Your task to perform on an android device: turn off priority inbox in the gmail app Image 0: 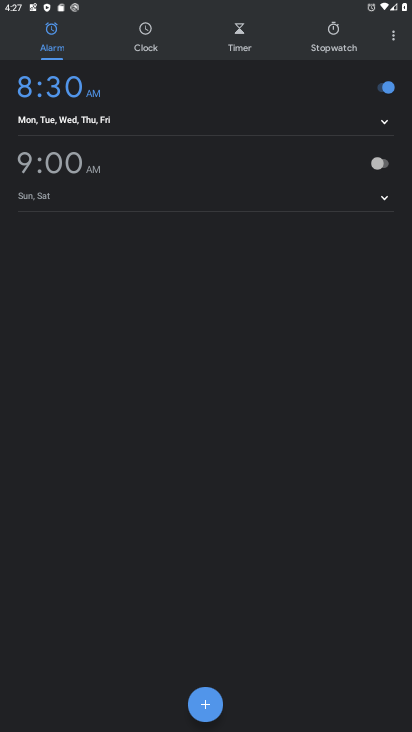
Step 0: press home button
Your task to perform on an android device: turn off priority inbox in the gmail app Image 1: 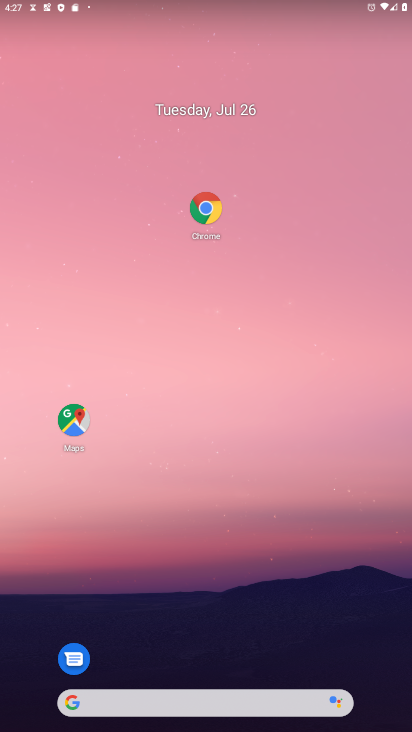
Step 1: drag from (211, 448) to (236, 47)
Your task to perform on an android device: turn off priority inbox in the gmail app Image 2: 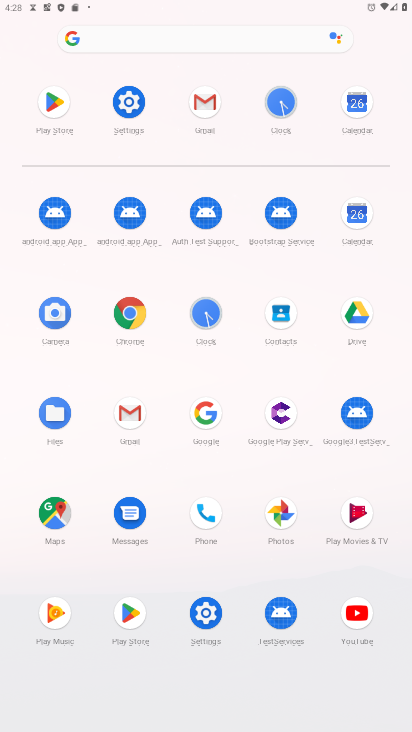
Step 2: click (198, 107)
Your task to perform on an android device: turn off priority inbox in the gmail app Image 3: 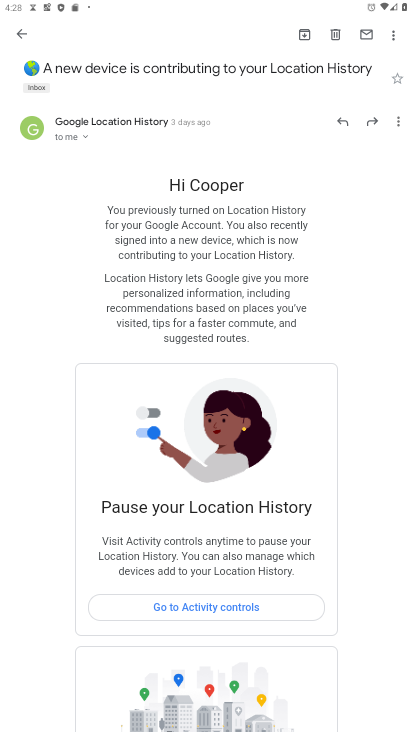
Step 3: click (19, 29)
Your task to perform on an android device: turn off priority inbox in the gmail app Image 4: 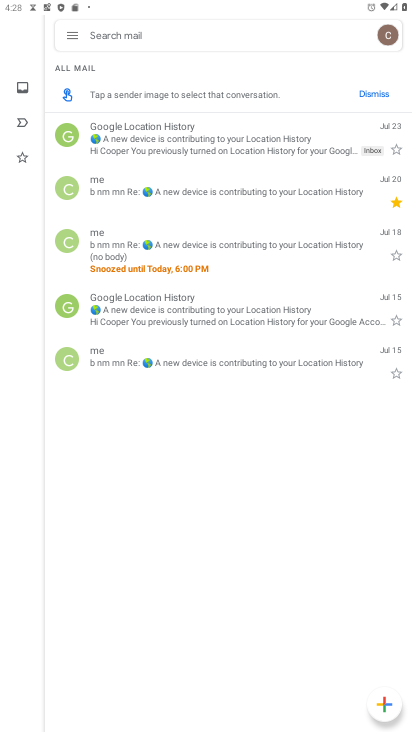
Step 4: click (76, 33)
Your task to perform on an android device: turn off priority inbox in the gmail app Image 5: 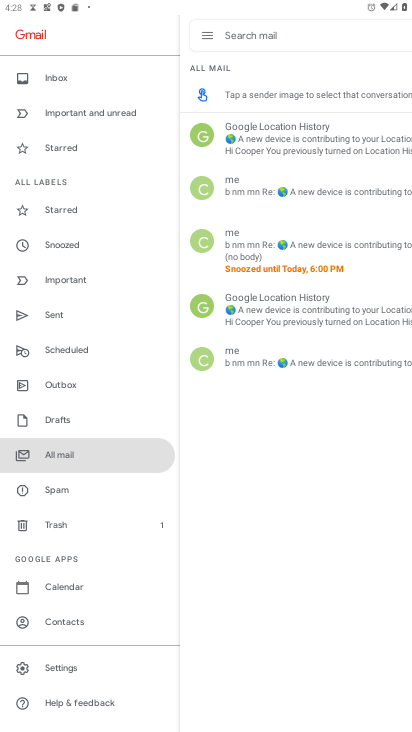
Step 5: click (61, 663)
Your task to perform on an android device: turn off priority inbox in the gmail app Image 6: 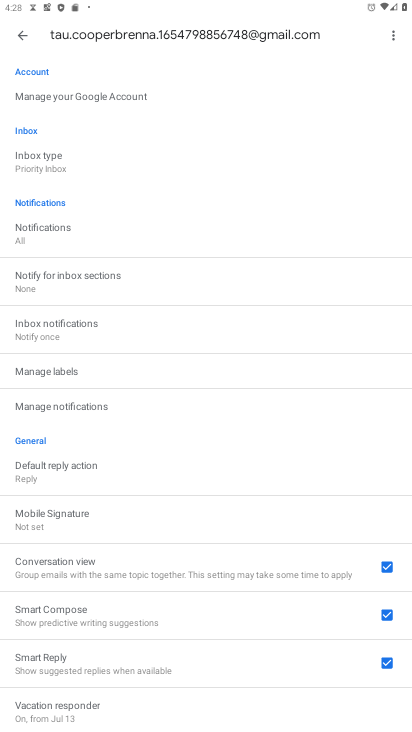
Step 6: click (53, 171)
Your task to perform on an android device: turn off priority inbox in the gmail app Image 7: 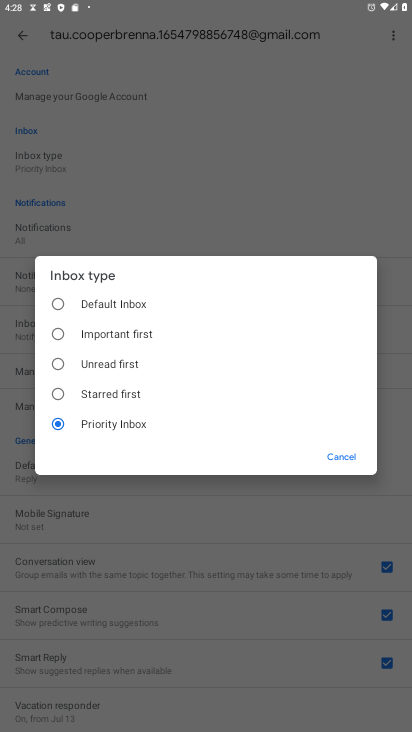
Step 7: click (60, 309)
Your task to perform on an android device: turn off priority inbox in the gmail app Image 8: 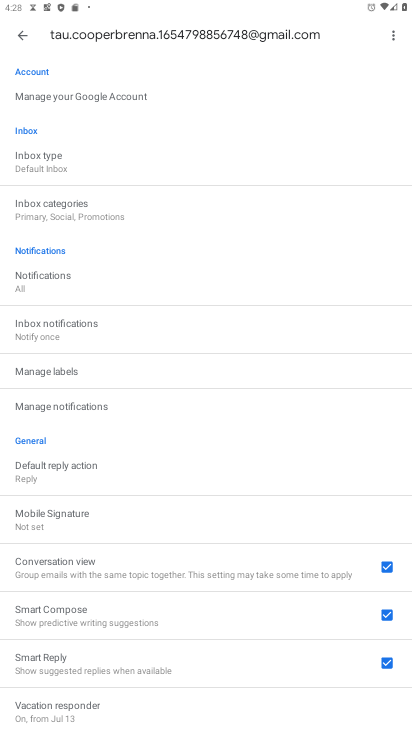
Step 8: task complete